Your task to perform on an android device: toggle notifications settings in the gmail app Image 0: 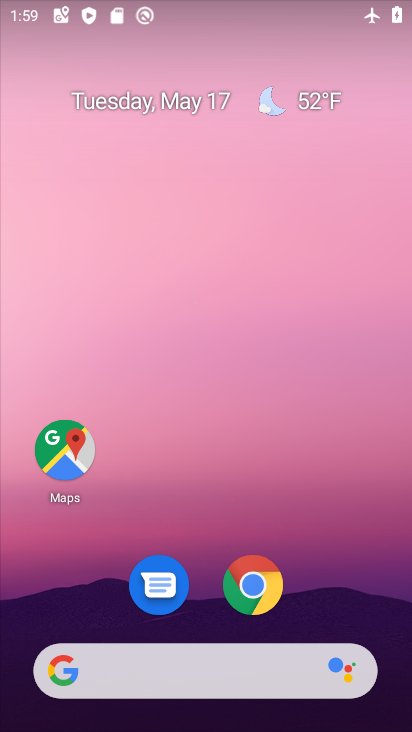
Step 0: drag from (343, 564) to (342, 32)
Your task to perform on an android device: toggle notifications settings in the gmail app Image 1: 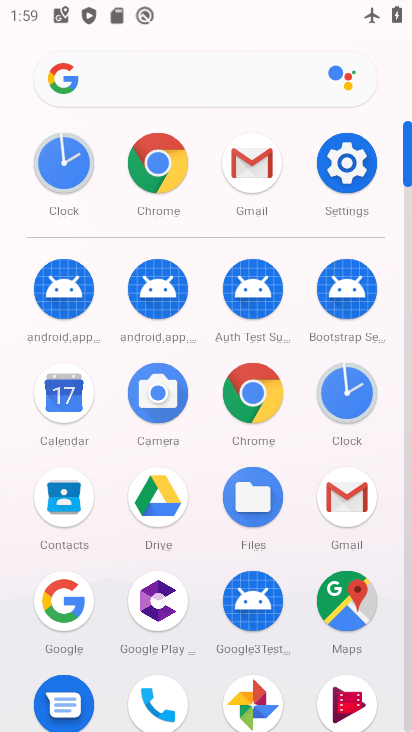
Step 1: click (258, 170)
Your task to perform on an android device: toggle notifications settings in the gmail app Image 2: 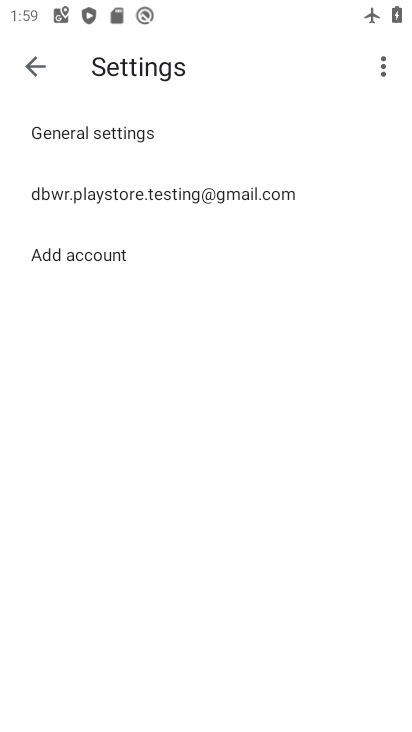
Step 2: click (142, 133)
Your task to perform on an android device: toggle notifications settings in the gmail app Image 3: 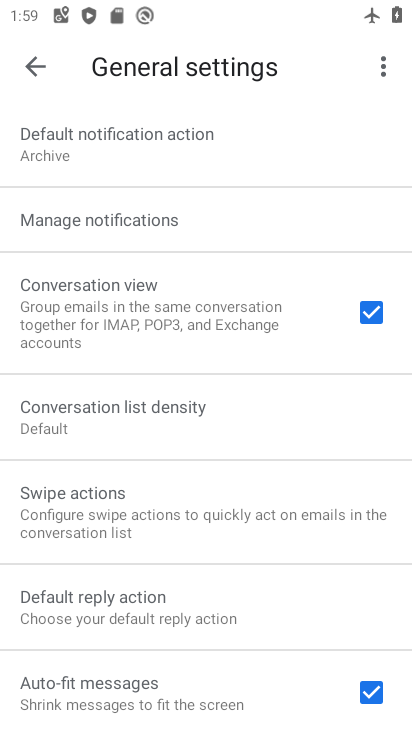
Step 3: click (276, 229)
Your task to perform on an android device: toggle notifications settings in the gmail app Image 4: 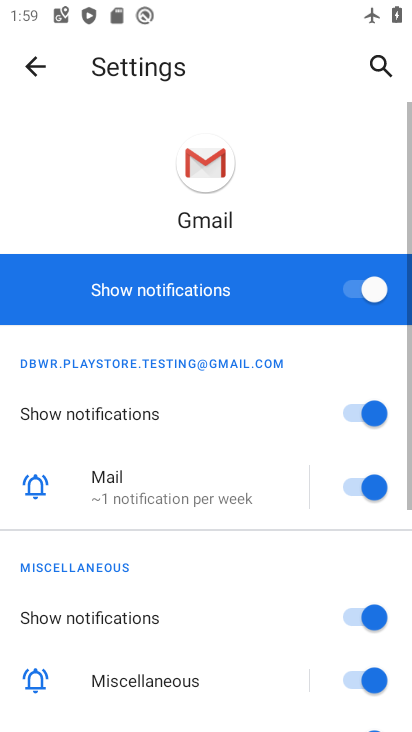
Step 4: click (359, 284)
Your task to perform on an android device: toggle notifications settings in the gmail app Image 5: 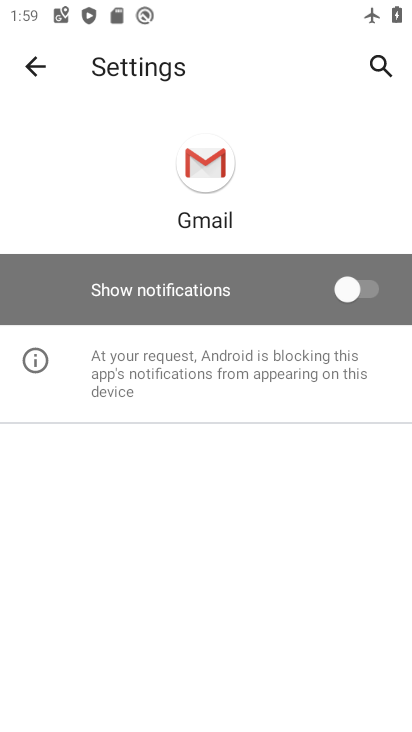
Step 5: task complete